Your task to perform on an android device: Go to Yahoo.com Image 0: 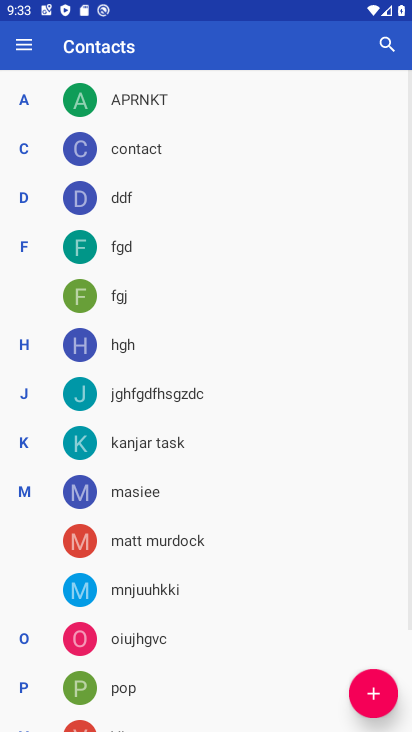
Step 0: press home button
Your task to perform on an android device: Go to Yahoo.com Image 1: 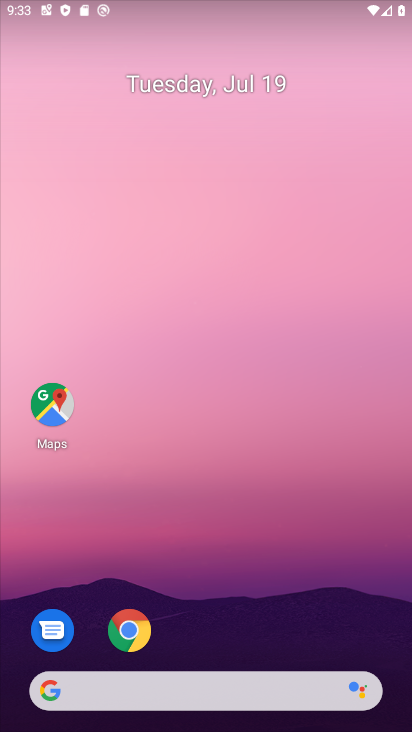
Step 1: drag from (227, 622) to (202, 119)
Your task to perform on an android device: Go to Yahoo.com Image 2: 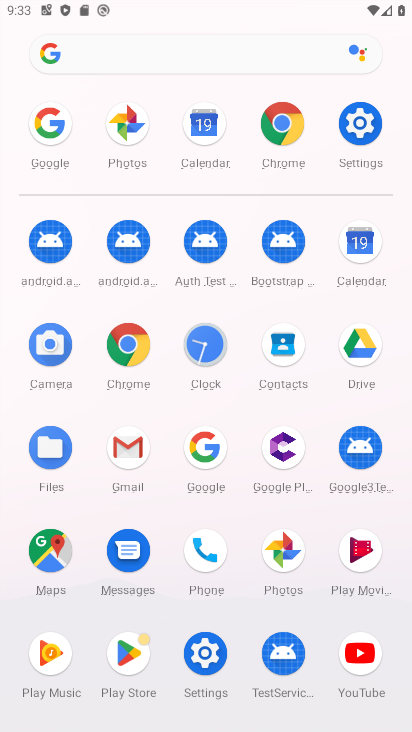
Step 2: click (128, 340)
Your task to perform on an android device: Go to Yahoo.com Image 3: 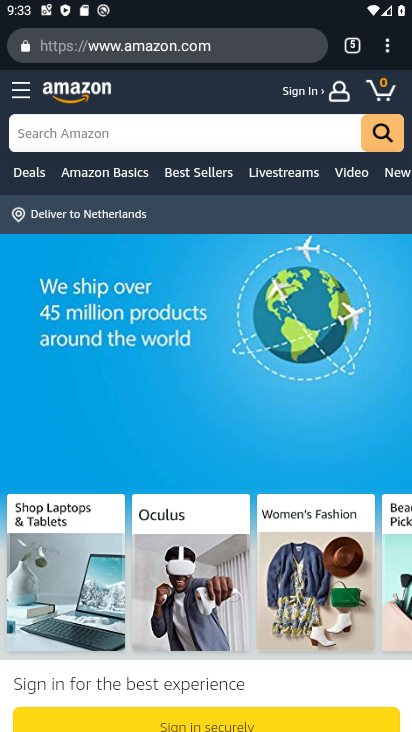
Step 3: press back button
Your task to perform on an android device: Go to Yahoo.com Image 4: 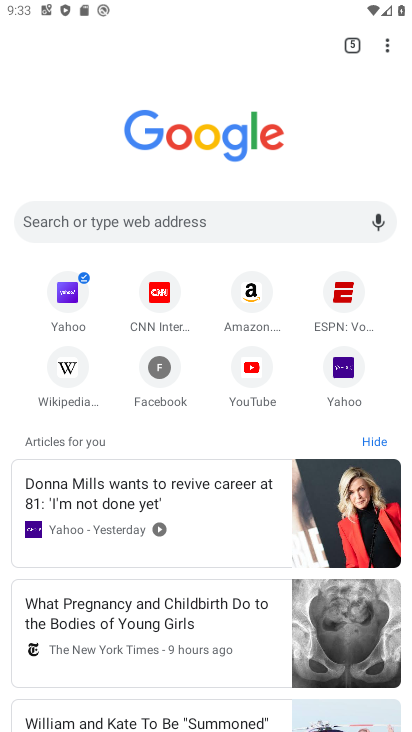
Step 4: click (53, 294)
Your task to perform on an android device: Go to Yahoo.com Image 5: 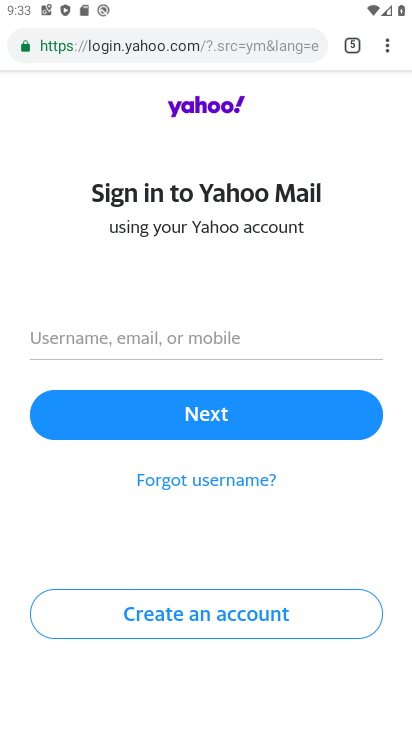
Step 5: task complete